Your task to perform on an android device: Show me the alarms in the clock app Image 0: 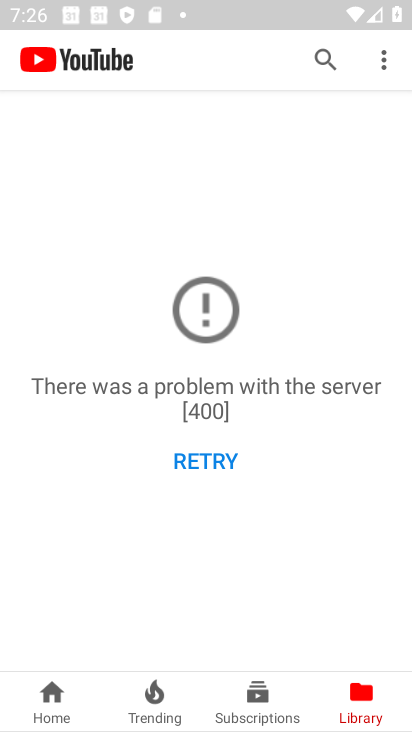
Step 0: press home button
Your task to perform on an android device: Show me the alarms in the clock app Image 1: 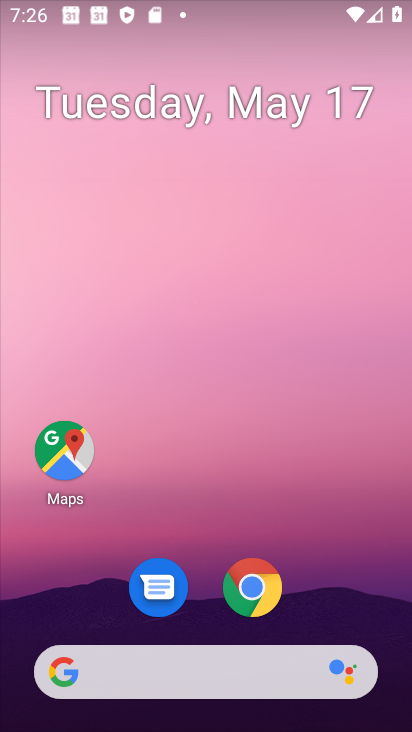
Step 1: drag from (236, 685) to (257, 189)
Your task to perform on an android device: Show me the alarms in the clock app Image 2: 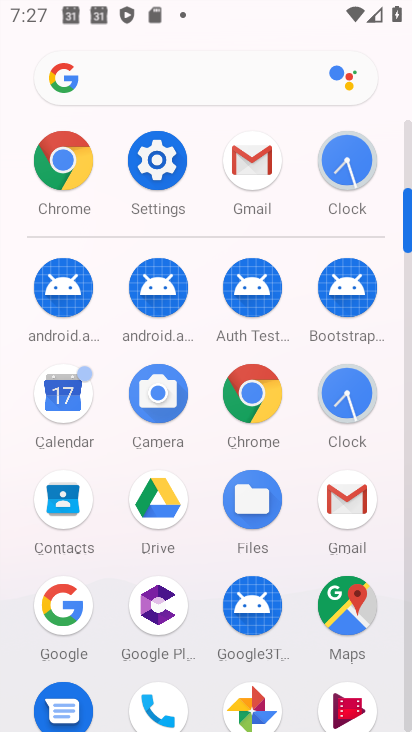
Step 2: click (350, 392)
Your task to perform on an android device: Show me the alarms in the clock app Image 3: 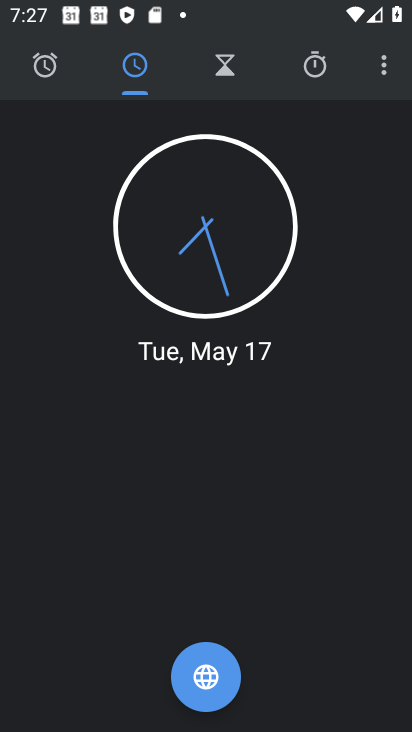
Step 3: click (384, 64)
Your task to perform on an android device: Show me the alarms in the clock app Image 4: 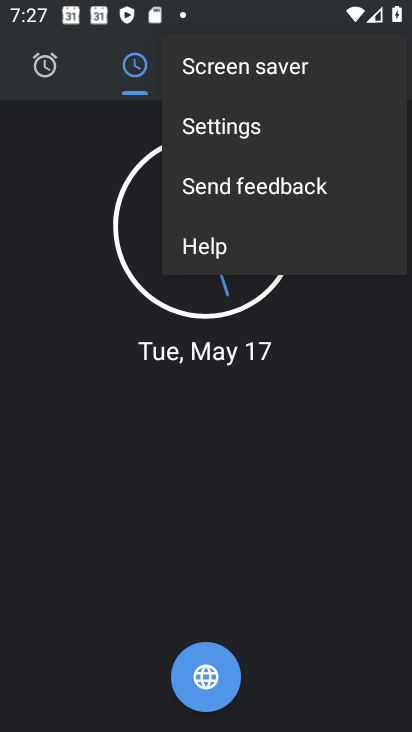
Step 4: click (195, 360)
Your task to perform on an android device: Show me the alarms in the clock app Image 5: 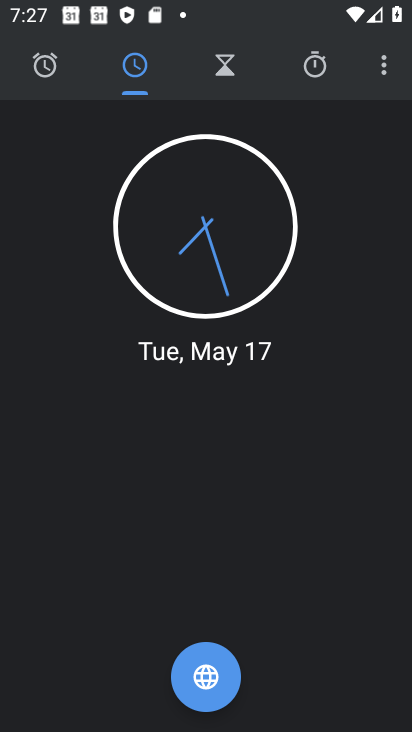
Step 5: click (21, 54)
Your task to perform on an android device: Show me the alarms in the clock app Image 6: 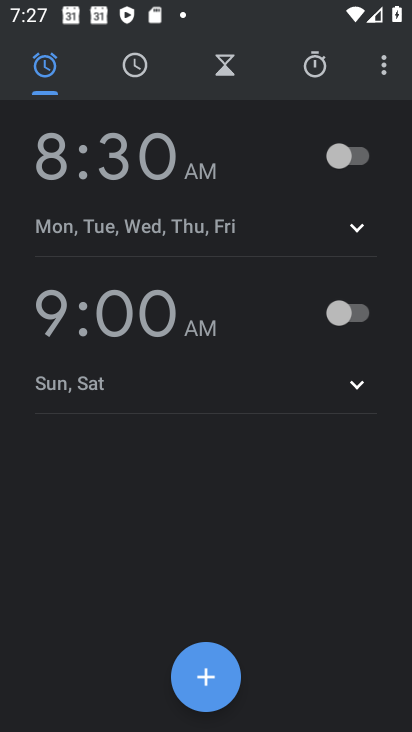
Step 6: task complete